Your task to perform on an android device: create a new album in the google photos Image 0: 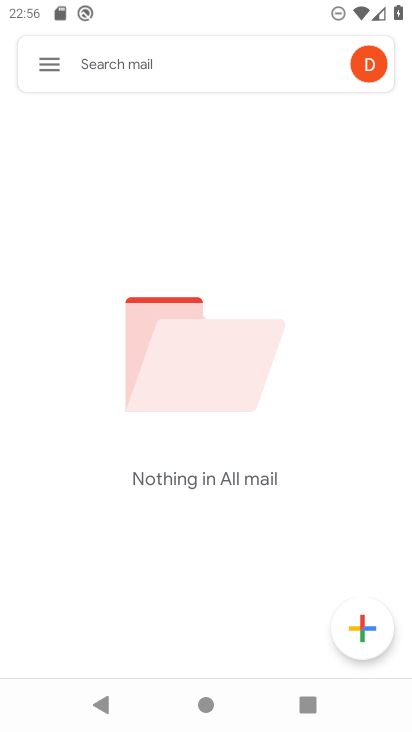
Step 0: press home button
Your task to perform on an android device: create a new album in the google photos Image 1: 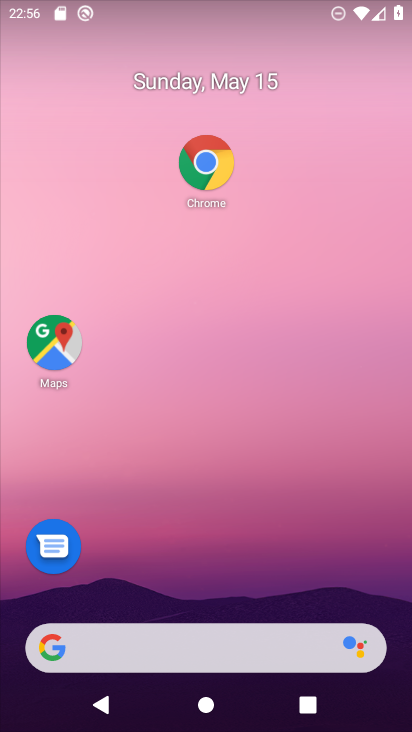
Step 1: drag from (267, 568) to (274, 166)
Your task to perform on an android device: create a new album in the google photos Image 2: 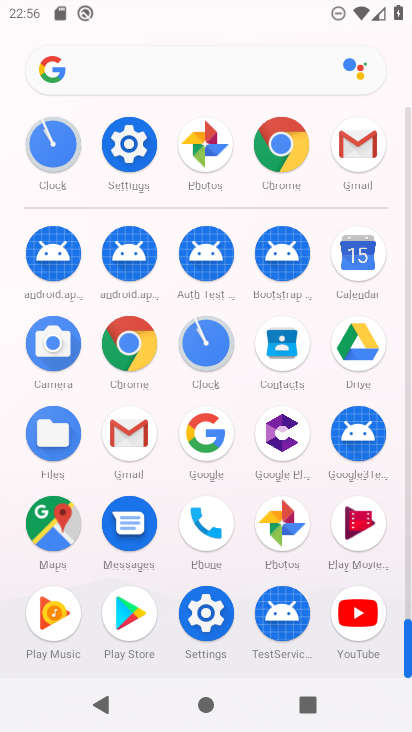
Step 2: click (280, 521)
Your task to perform on an android device: create a new album in the google photos Image 3: 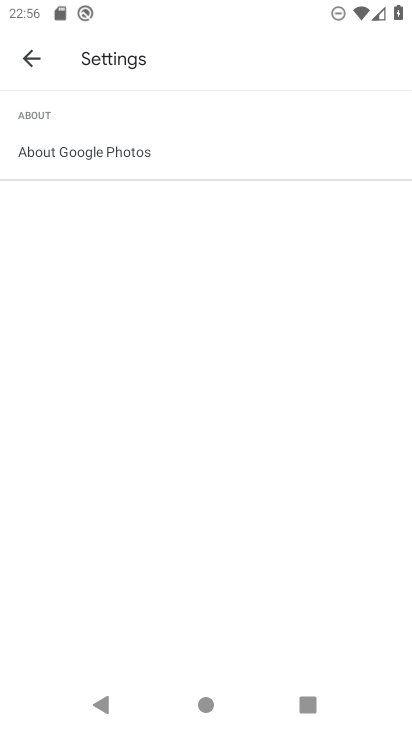
Step 3: click (30, 61)
Your task to perform on an android device: create a new album in the google photos Image 4: 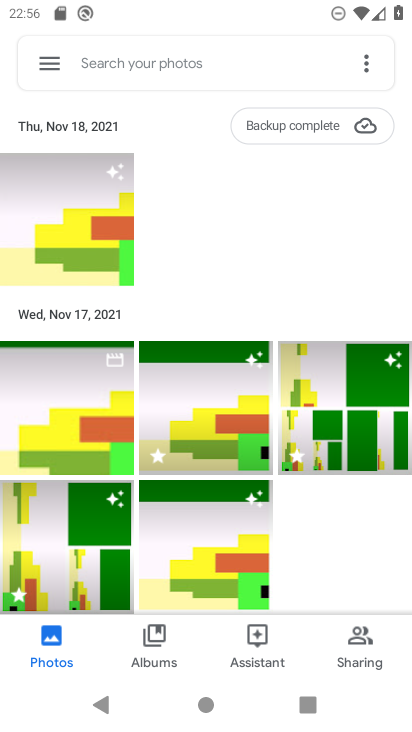
Step 4: click (65, 174)
Your task to perform on an android device: create a new album in the google photos Image 5: 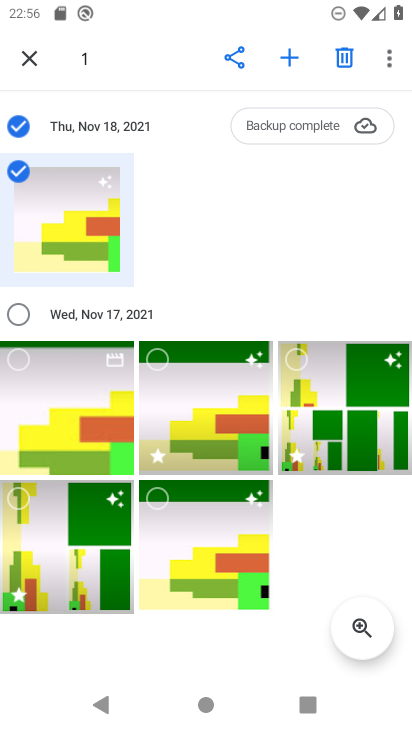
Step 5: click (285, 55)
Your task to perform on an android device: create a new album in the google photos Image 6: 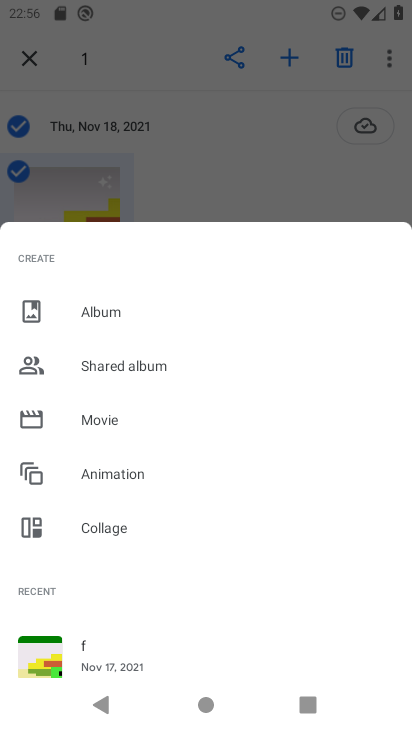
Step 6: click (107, 313)
Your task to perform on an android device: create a new album in the google photos Image 7: 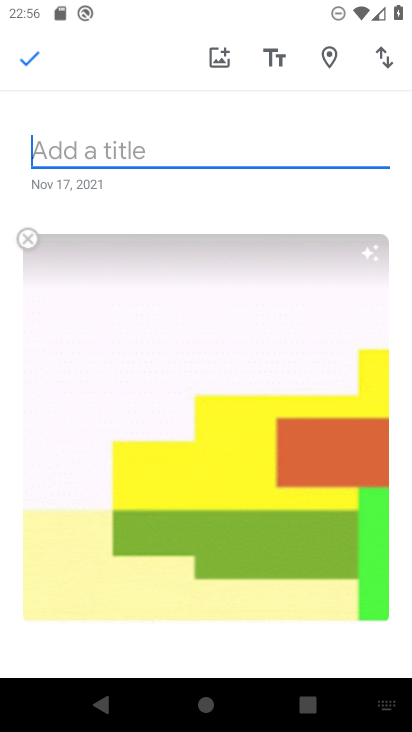
Step 7: click (170, 143)
Your task to perform on an android device: create a new album in the google photos Image 8: 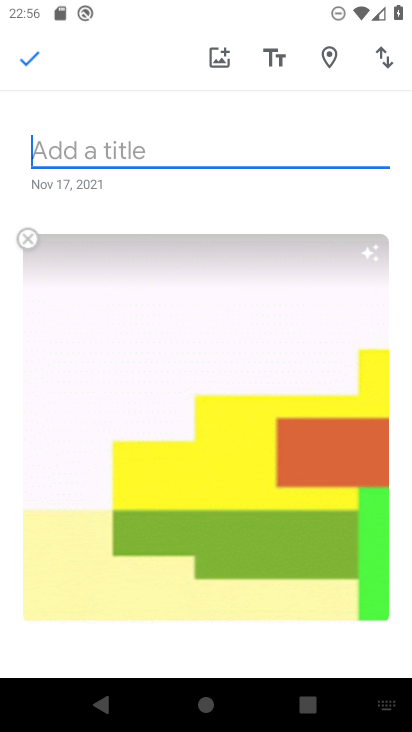
Step 8: type "hhghghghghghghg"
Your task to perform on an android device: create a new album in the google photos Image 9: 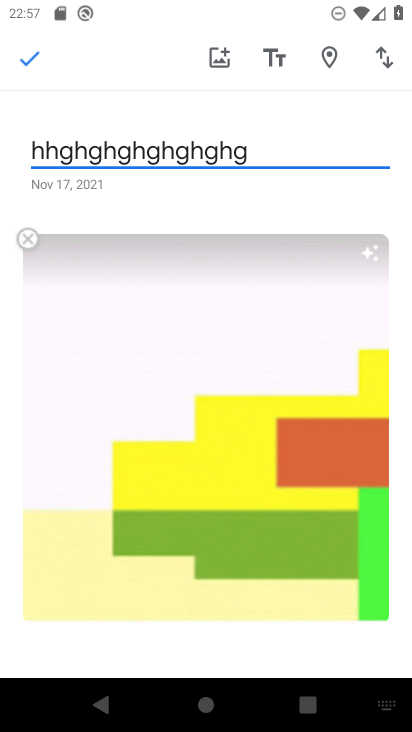
Step 9: click (22, 37)
Your task to perform on an android device: create a new album in the google photos Image 10: 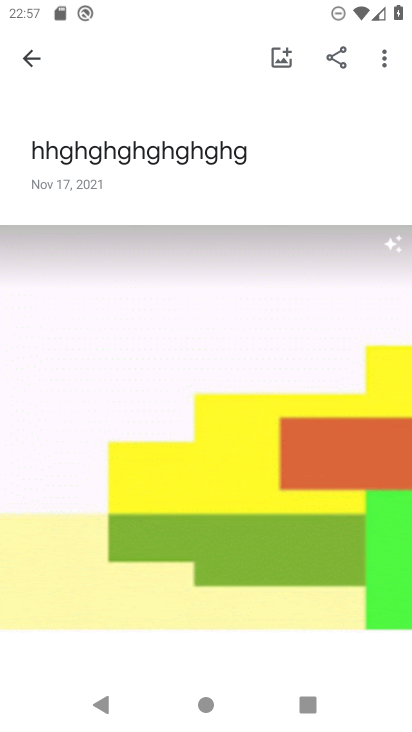
Step 10: task complete